Your task to perform on an android device: change notifications settings Image 0: 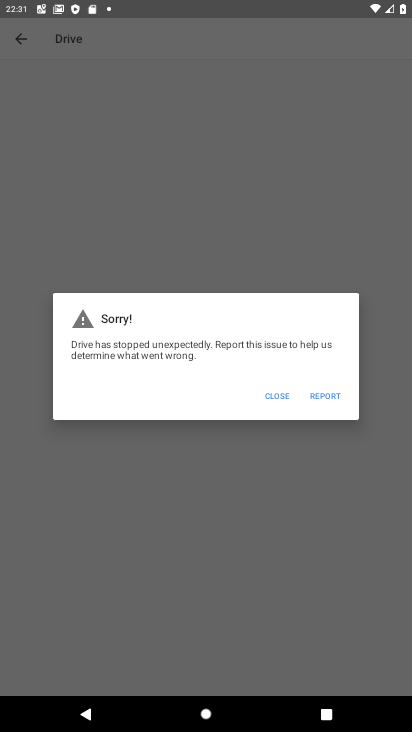
Step 0: press home button
Your task to perform on an android device: change notifications settings Image 1: 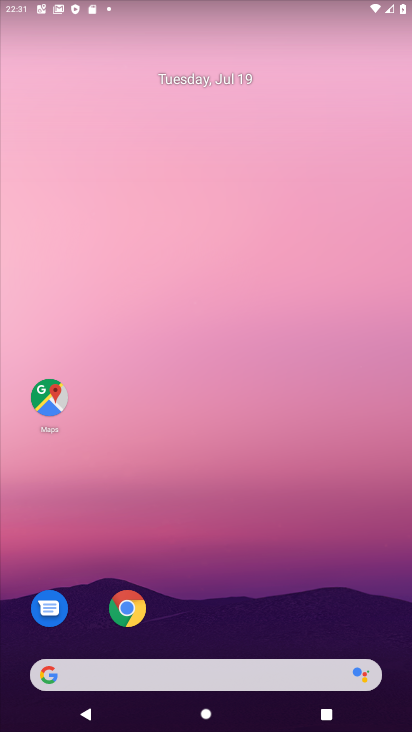
Step 1: drag from (309, 603) to (228, 33)
Your task to perform on an android device: change notifications settings Image 2: 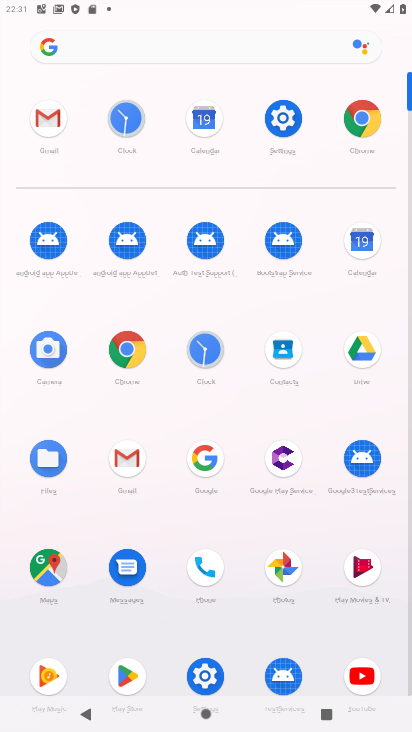
Step 2: click (278, 109)
Your task to perform on an android device: change notifications settings Image 3: 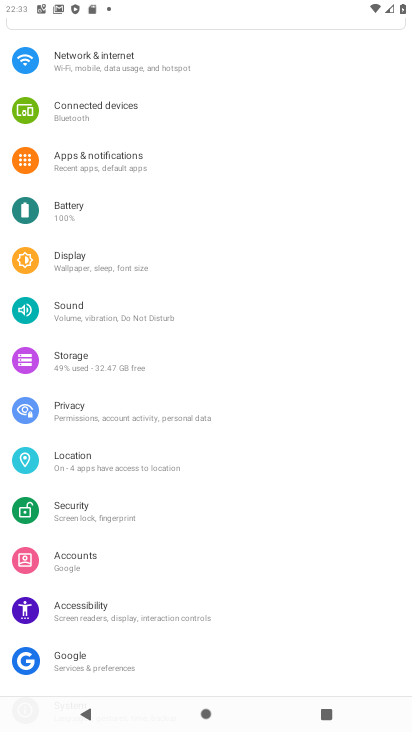
Step 3: click (98, 155)
Your task to perform on an android device: change notifications settings Image 4: 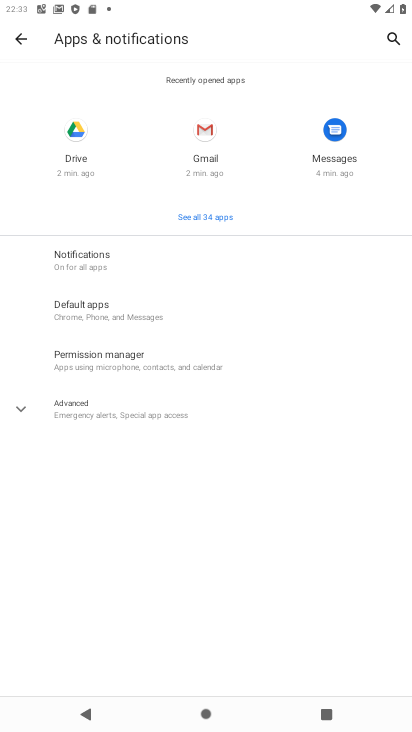
Step 4: click (123, 255)
Your task to perform on an android device: change notifications settings Image 5: 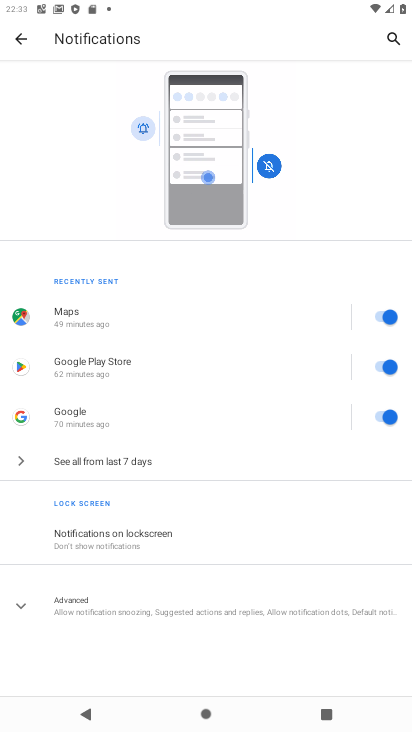
Step 5: task complete